Your task to perform on an android device: open app "Flipkart Online Shopping App" (install if not already installed) and go to login screen Image 0: 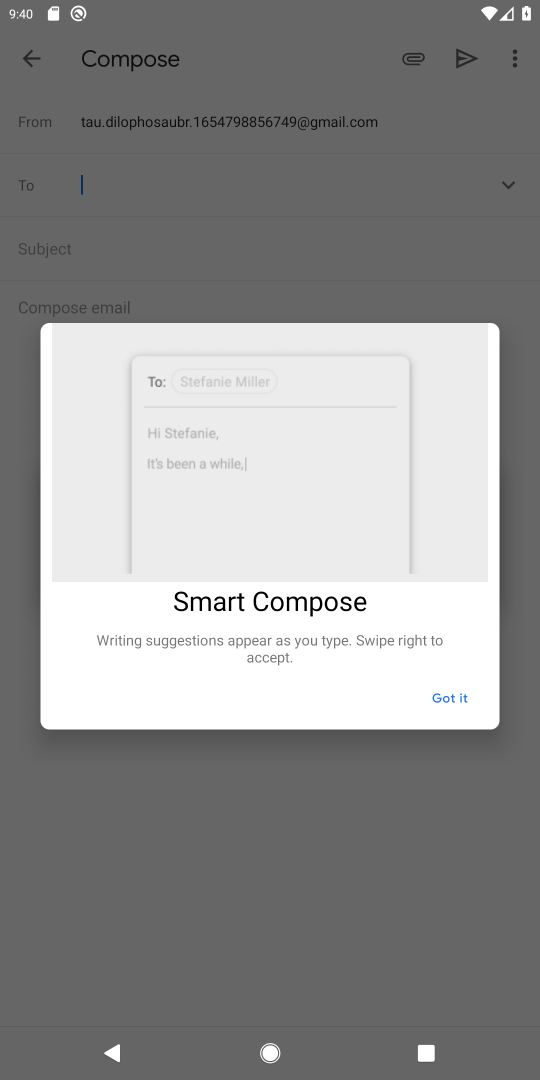
Step 0: press home button
Your task to perform on an android device: open app "Flipkart Online Shopping App" (install if not already installed) and go to login screen Image 1: 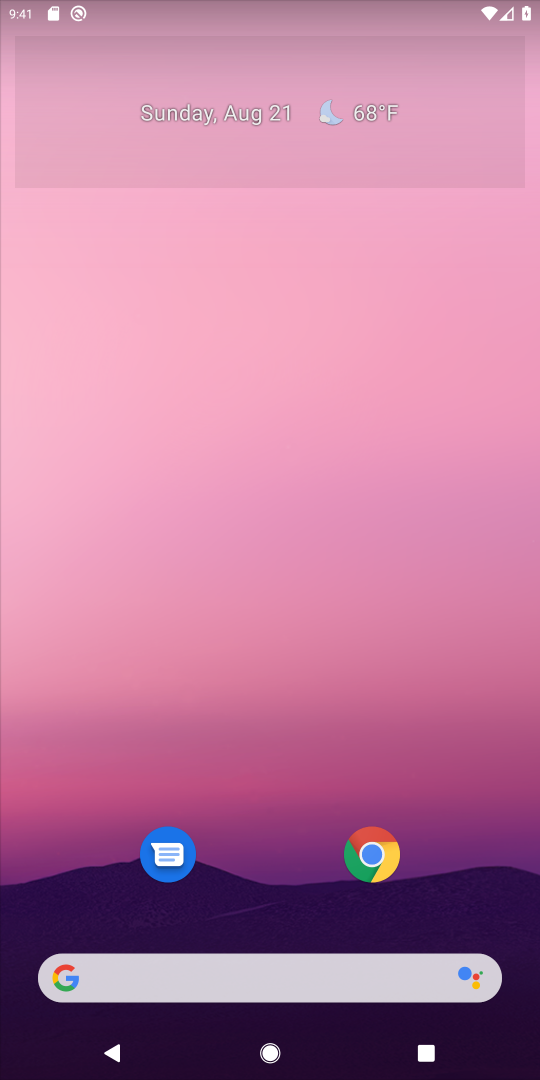
Step 1: drag from (258, 941) to (122, 40)
Your task to perform on an android device: open app "Flipkart Online Shopping App" (install if not already installed) and go to login screen Image 2: 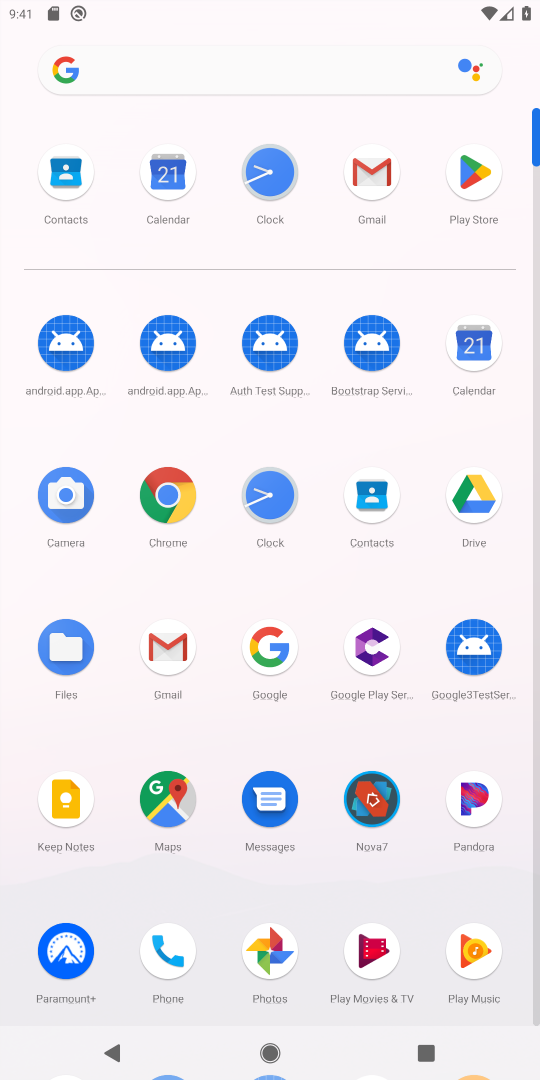
Step 2: click (438, 198)
Your task to perform on an android device: open app "Flipkart Online Shopping App" (install if not already installed) and go to login screen Image 3: 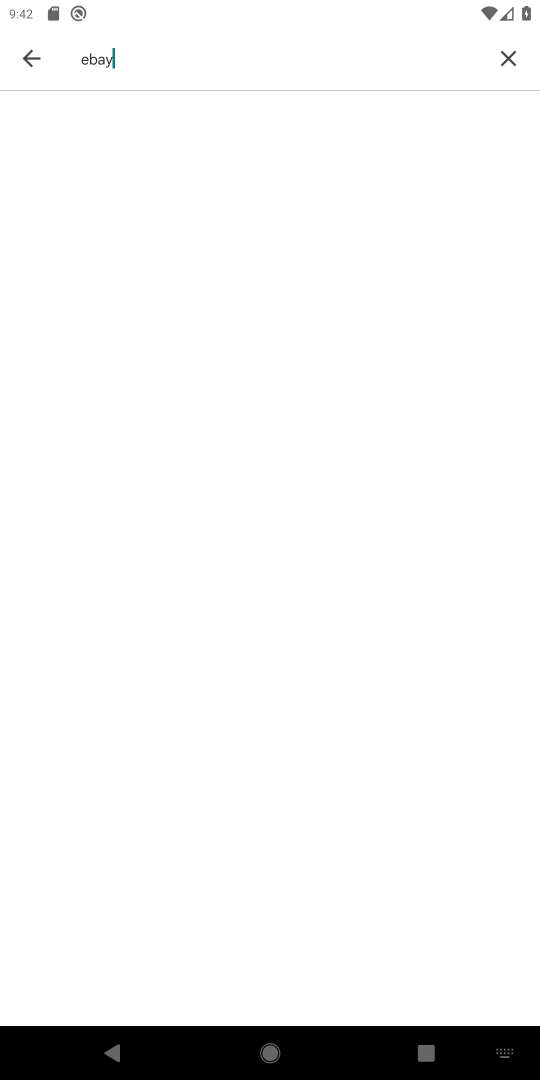
Step 3: click (513, 64)
Your task to perform on an android device: open app "Flipkart Online Shopping App" (install if not already installed) and go to login screen Image 4: 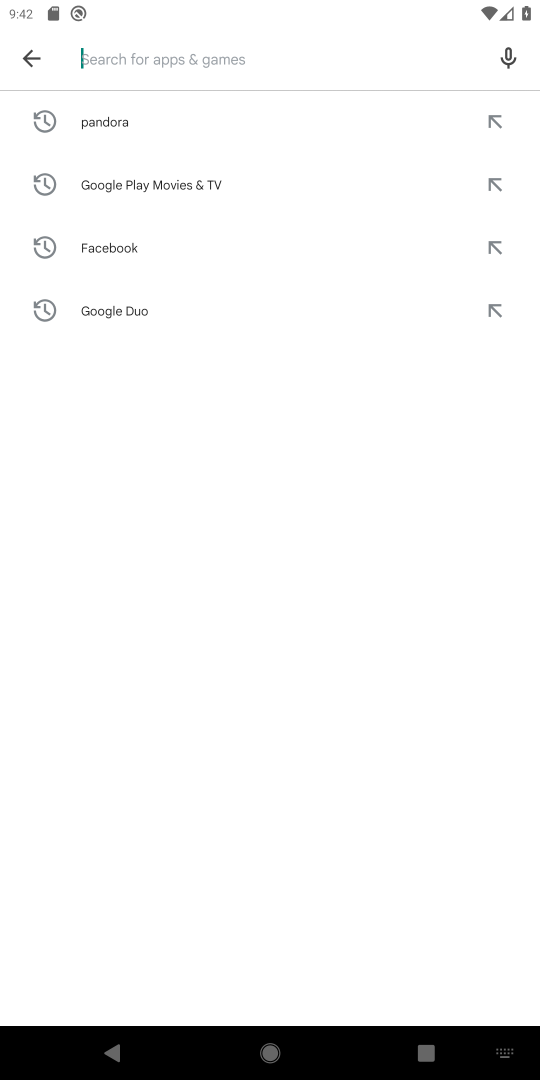
Step 4: type "flipkart"
Your task to perform on an android device: open app "Flipkart Online Shopping App" (install if not already installed) and go to login screen Image 5: 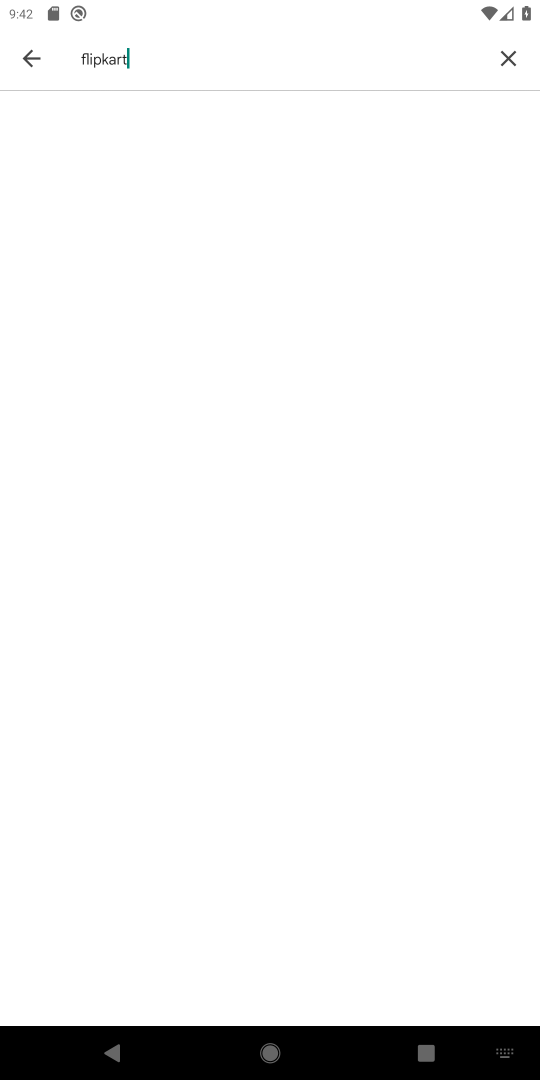
Step 5: task complete